Your task to perform on an android device: Open sound settings Image 0: 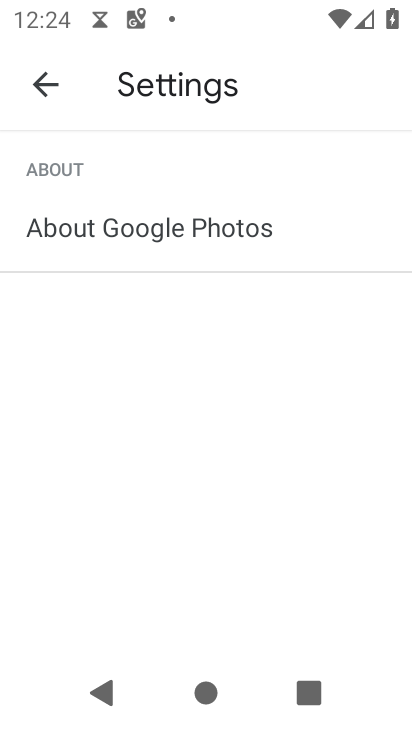
Step 0: press home button
Your task to perform on an android device: Open sound settings Image 1: 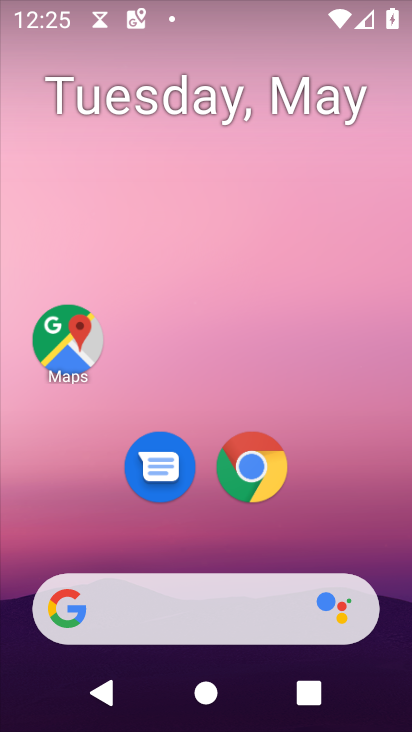
Step 1: drag from (296, 516) to (313, 38)
Your task to perform on an android device: Open sound settings Image 2: 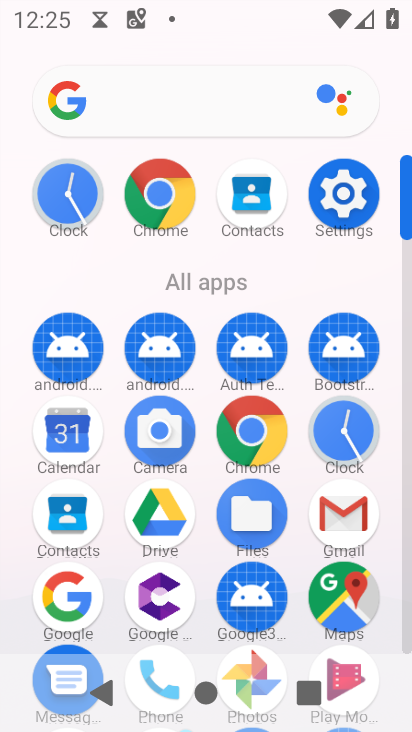
Step 2: click (337, 198)
Your task to perform on an android device: Open sound settings Image 3: 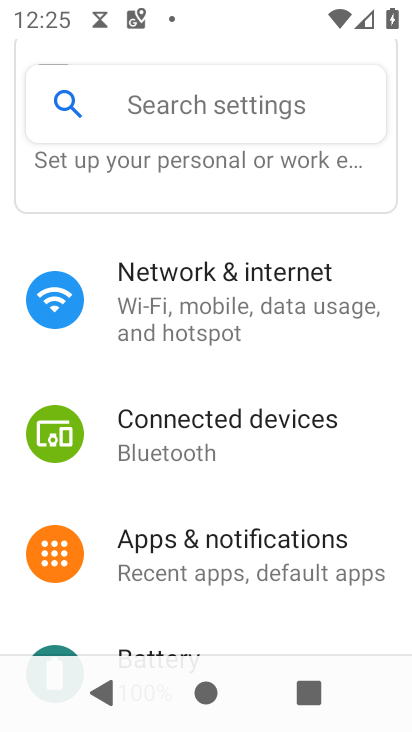
Step 3: drag from (252, 500) to (256, 217)
Your task to perform on an android device: Open sound settings Image 4: 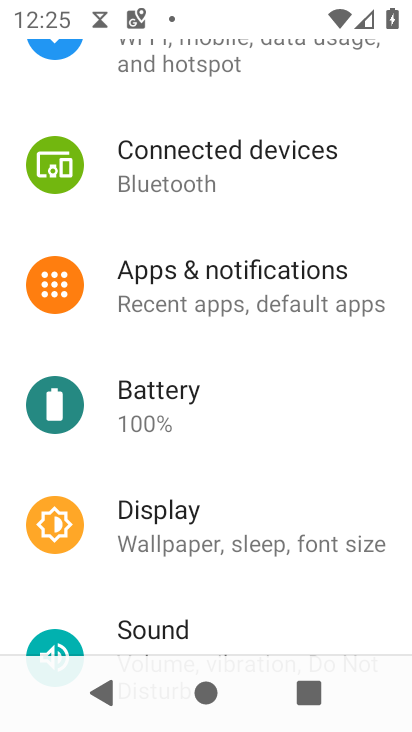
Step 4: click (183, 627)
Your task to perform on an android device: Open sound settings Image 5: 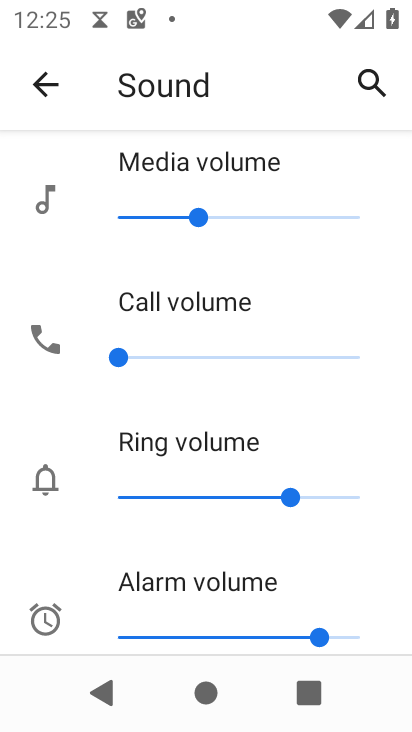
Step 5: task complete